Your task to perform on an android device: Open the calendar app, open the side menu, and click the "Day" option Image 0: 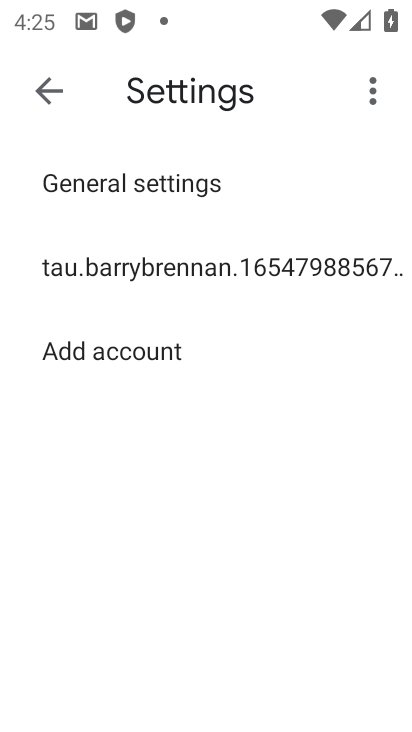
Step 0: press home button
Your task to perform on an android device: Open the calendar app, open the side menu, and click the "Day" option Image 1: 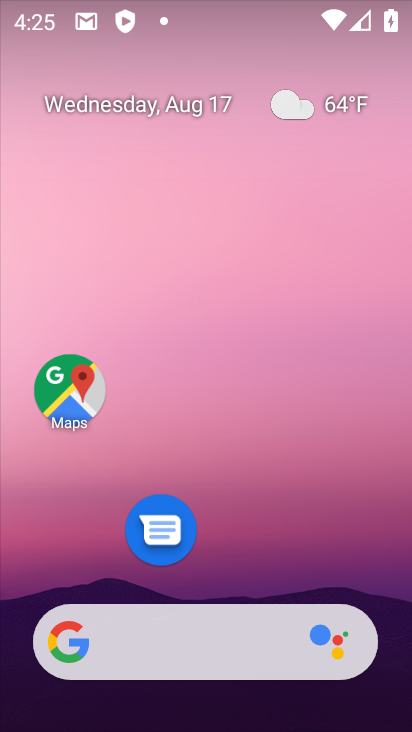
Step 1: drag from (208, 546) to (252, 43)
Your task to perform on an android device: Open the calendar app, open the side menu, and click the "Day" option Image 2: 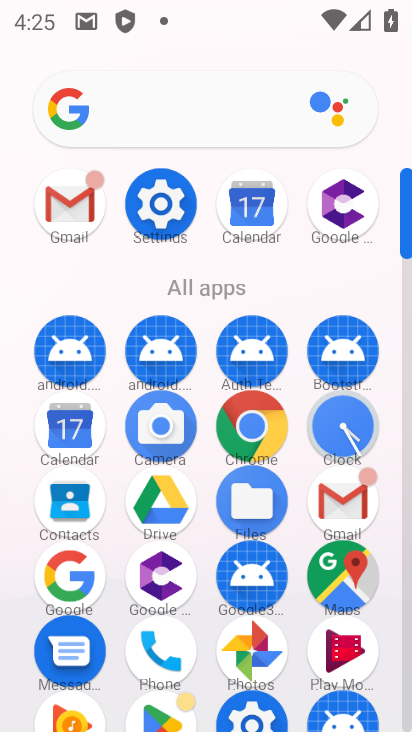
Step 2: click (77, 434)
Your task to perform on an android device: Open the calendar app, open the side menu, and click the "Day" option Image 3: 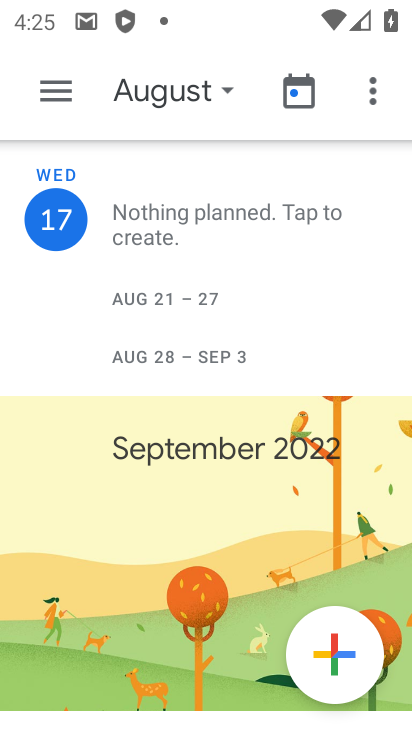
Step 3: click (49, 88)
Your task to perform on an android device: Open the calendar app, open the side menu, and click the "Day" option Image 4: 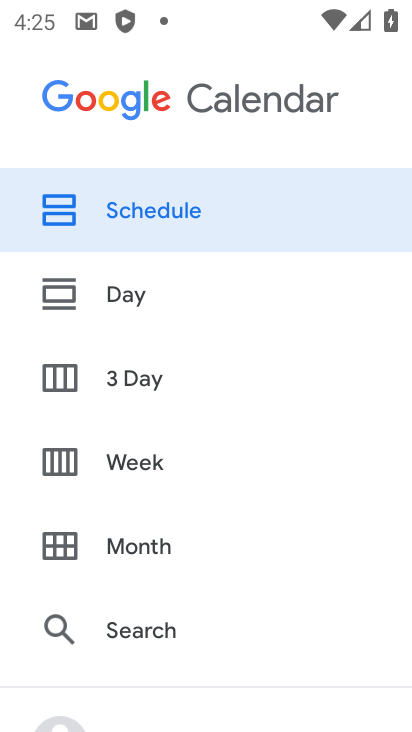
Step 4: click (131, 286)
Your task to perform on an android device: Open the calendar app, open the side menu, and click the "Day" option Image 5: 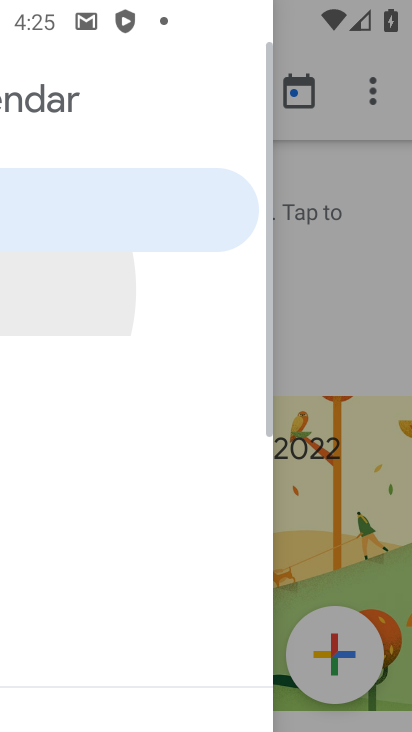
Step 5: click (131, 286)
Your task to perform on an android device: Open the calendar app, open the side menu, and click the "Day" option Image 6: 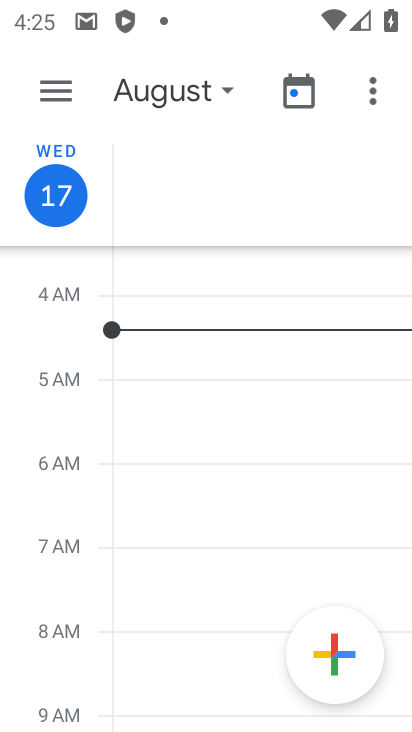
Step 6: task complete